Your task to perform on an android device: toggle data saver in the chrome app Image 0: 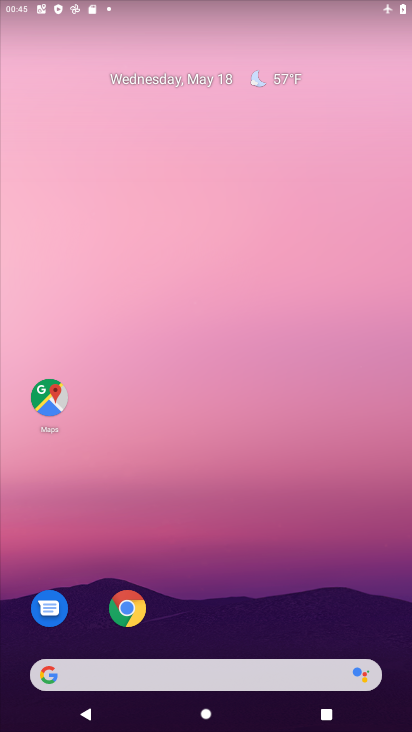
Step 0: click (127, 608)
Your task to perform on an android device: toggle data saver in the chrome app Image 1: 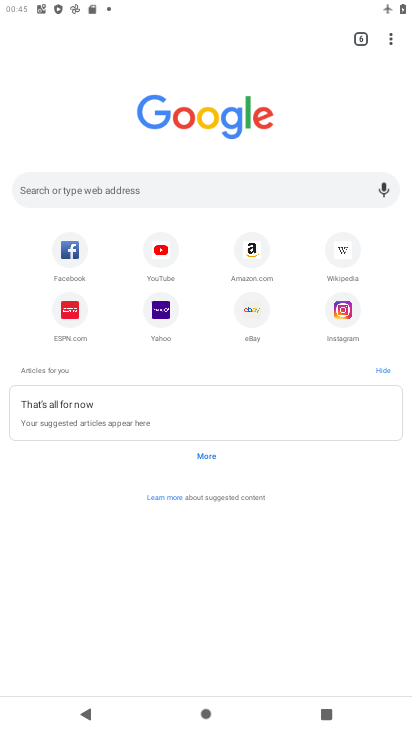
Step 1: click (389, 40)
Your task to perform on an android device: toggle data saver in the chrome app Image 2: 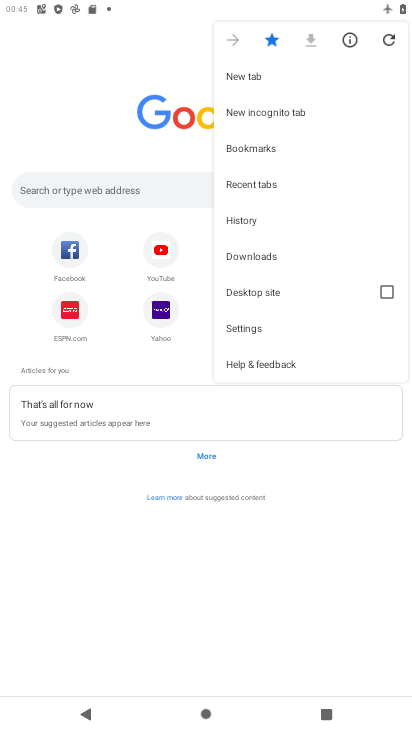
Step 2: click (245, 332)
Your task to perform on an android device: toggle data saver in the chrome app Image 3: 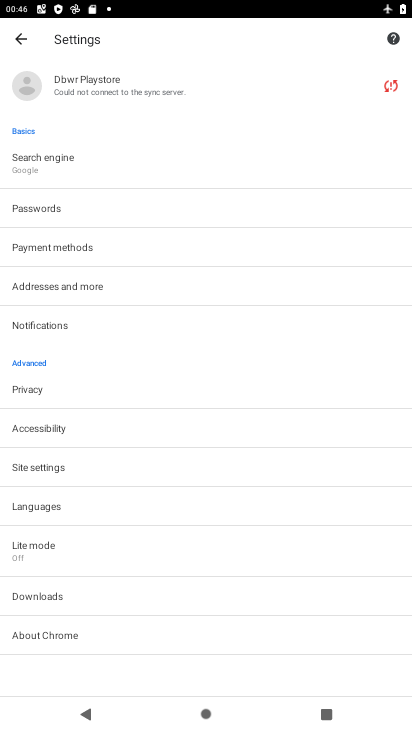
Step 3: click (44, 542)
Your task to perform on an android device: toggle data saver in the chrome app Image 4: 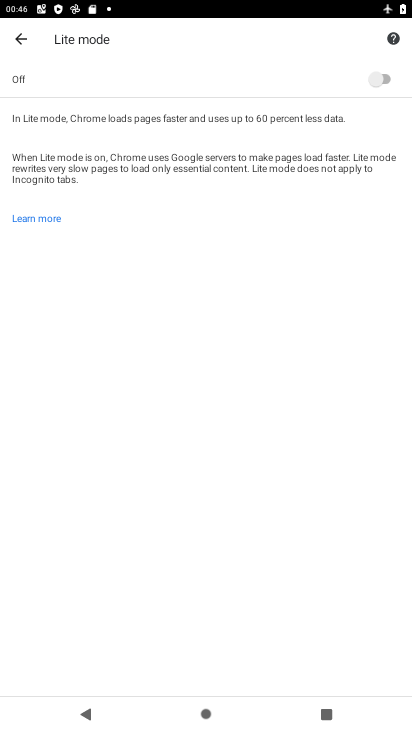
Step 4: click (375, 80)
Your task to perform on an android device: toggle data saver in the chrome app Image 5: 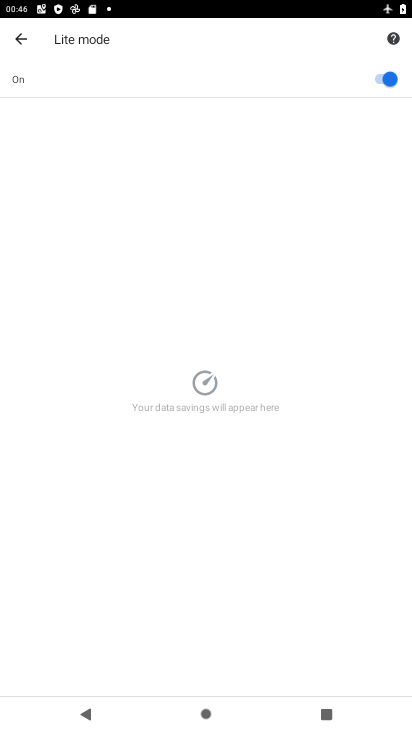
Step 5: task complete